Your task to perform on an android device: turn on javascript in the chrome app Image 0: 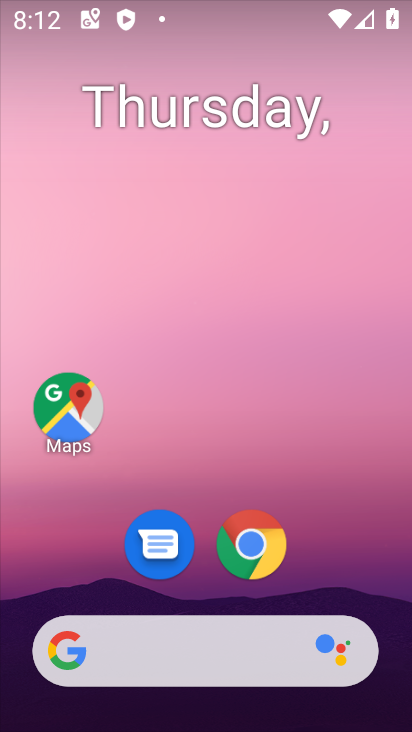
Step 0: click (251, 544)
Your task to perform on an android device: turn on javascript in the chrome app Image 1: 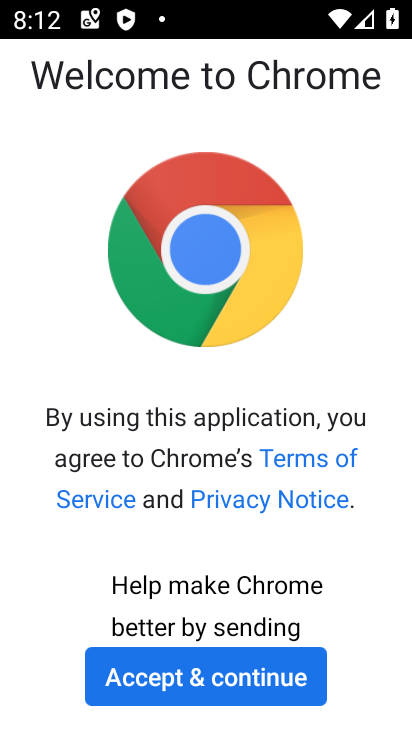
Step 1: click (201, 676)
Your task to perform on an android device: turn on javascript in the chrome app Image 2: 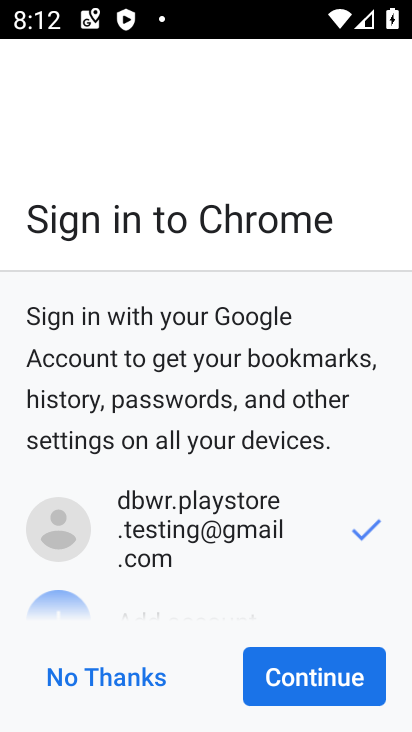
Step 2: click (304, 679)
Your task to perform on an android device: turn on javascript in the chrome app Image 3: 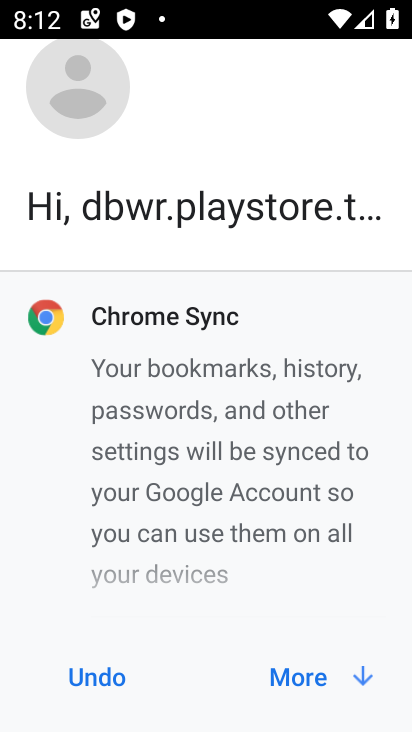
Step 3: click (304, 679)
Your task to perform on an android device: turn on javascript in the chrome app Image 4: 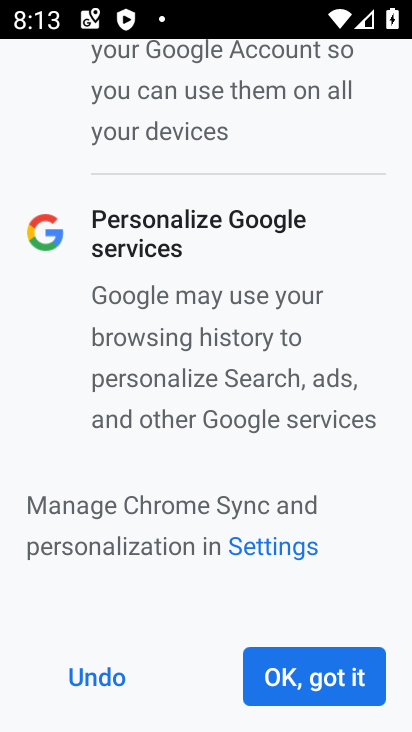
Step 4: click (304, 679)
Your task to perform on an android device: turn on javascript in the chrome app Image 5: 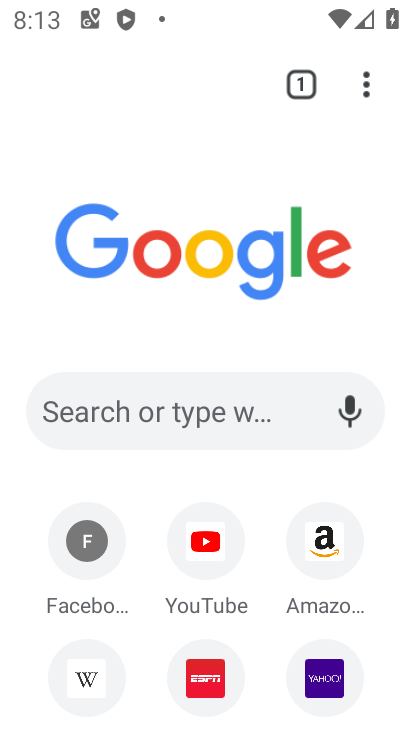
Step 5: click (369, 83)
Your task to perform on an android device: turn on javascript in the chrome app Image 6: 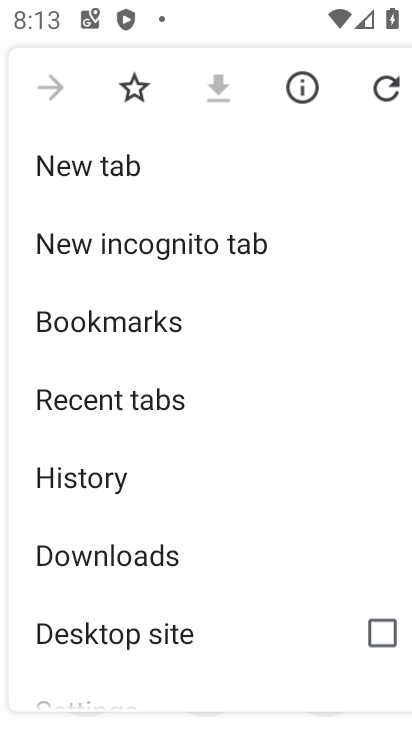
Step 6: drag from (142, 518) to (177, 436)
Your task to perform on an android device: turn on javascript in the chrome app Image 7: 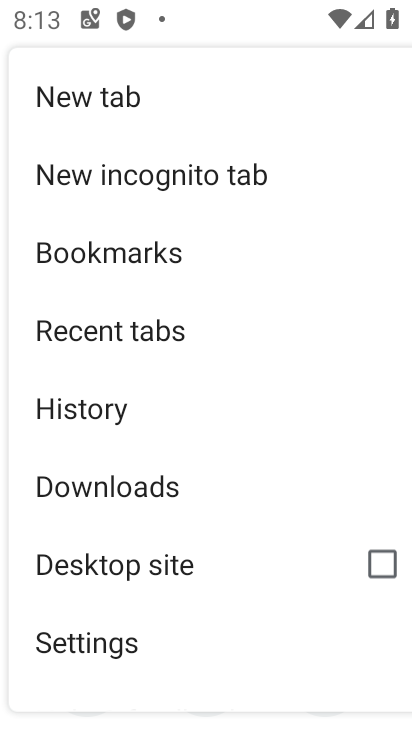
Step 7: drag from (115, 598) to (187, 505)
Your task to perform on an android device: turn on javascript in the chrome app Image 8: 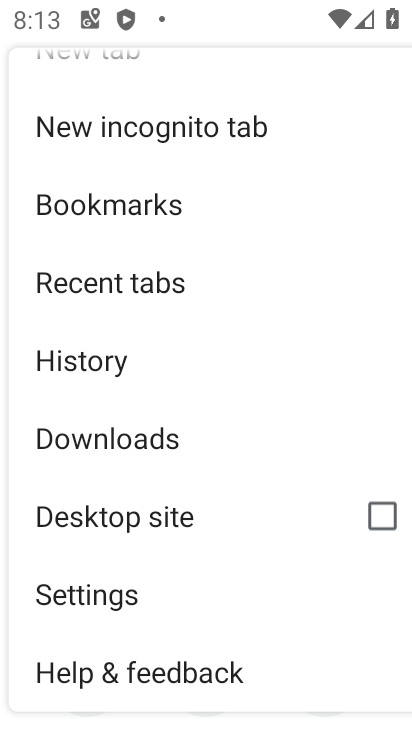
Step 8: click (122, 582)
Your task to perform on an android device: turn on javascript in the chrome app Image 9: 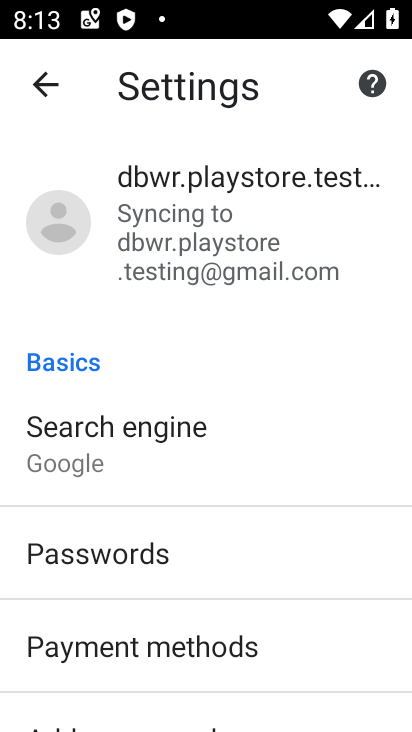
Step 9: drag from (190, 616) to (260, 509)
Your task to perform on an android device: turn on javascript in the chrome app Image 10: 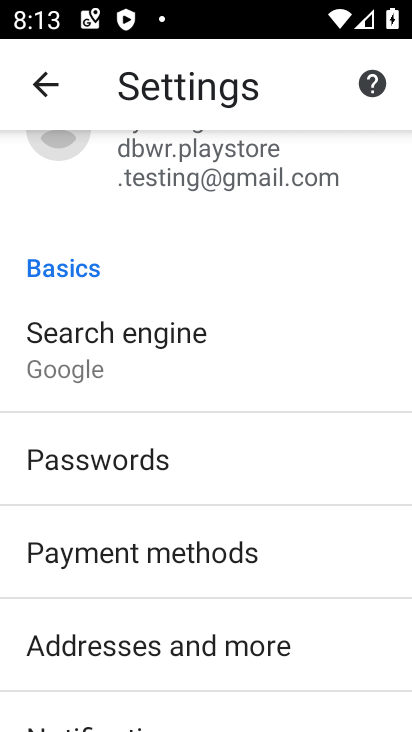
Step 10: drag from (169, 612) to (244, 511)
Your task to perform on an android device: turn on javascript in the chrome app Image 11: 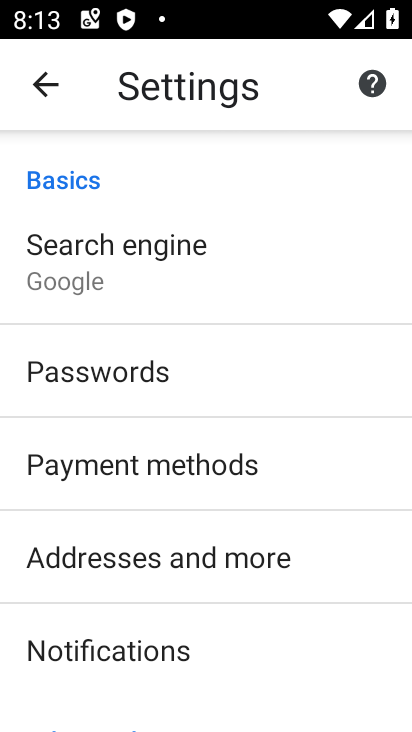
Step 11: drag from (130, 631) to (239, 506)
Your task to perform on an android device: turn on javascript in the chrome app Image 12: 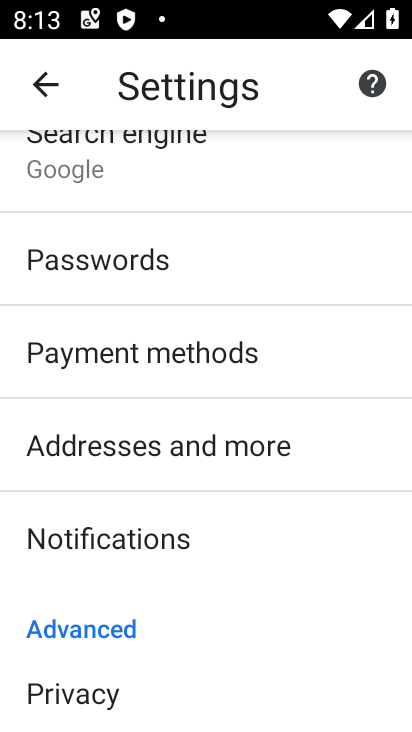
Step 12: drag from (110, 587) to (219, 452)
Your task to perform on an android device: turn on javascript in the chrome app Image 13: 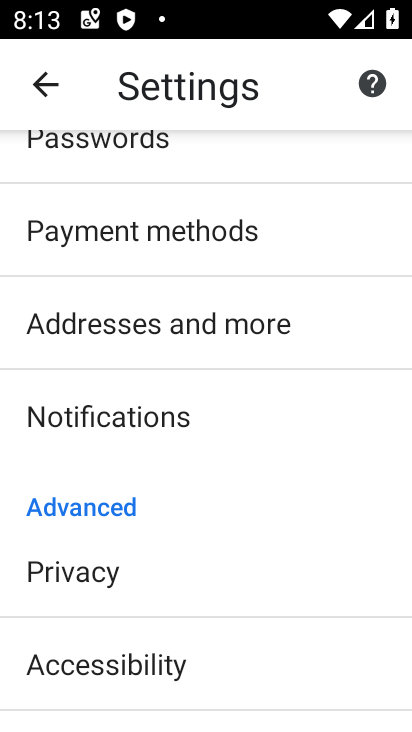
Step 13: drag from (122, 583) to (203, 491)
Your task to perform on an android device: turn on javascript in the chrome app Image 14: 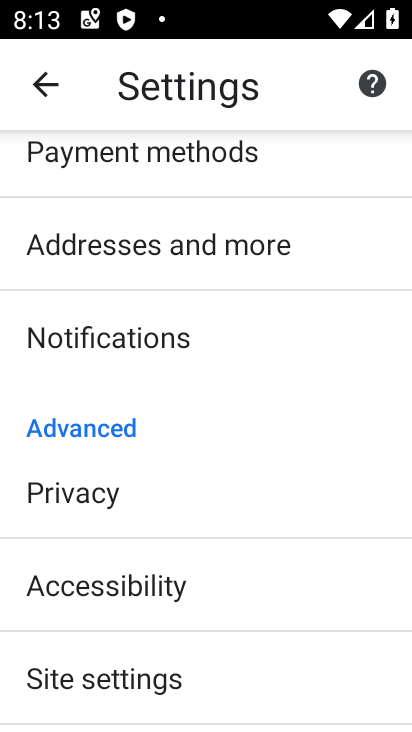
Step 14: drag from (115, 590) to (207, 488)
Your task to perform on an android device: turn on javascript in the chrome app Image 15: 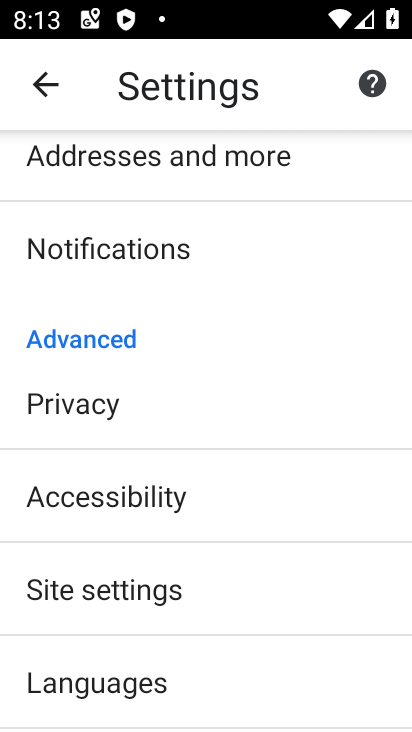
Step 15: click (136, 588)
Your task to perform on an android device: turn on javascript in the chrome app Image 16: 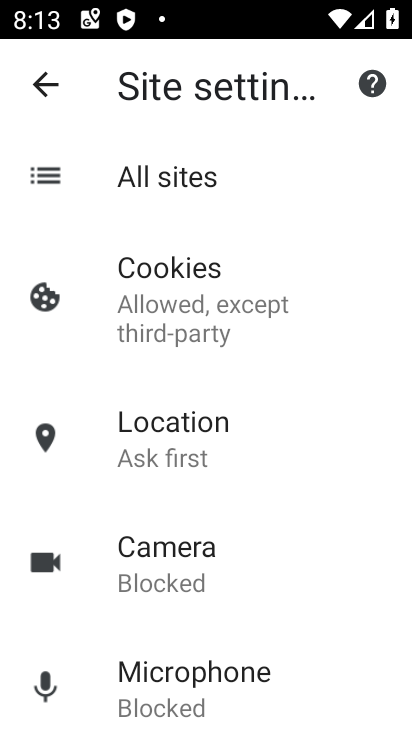
Step 16: drag from (168, 620) to (210, 534)
Your task to perform on an android device: turn on javascript in the chrome app Image 17: 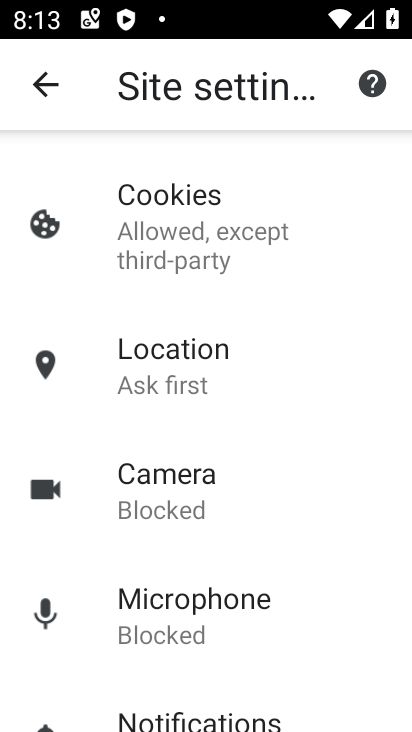
Step 17: drag from (156, 650) to (240, 549)
Your task to perform on an android device: turn on javascript in the chrome app Image 18: 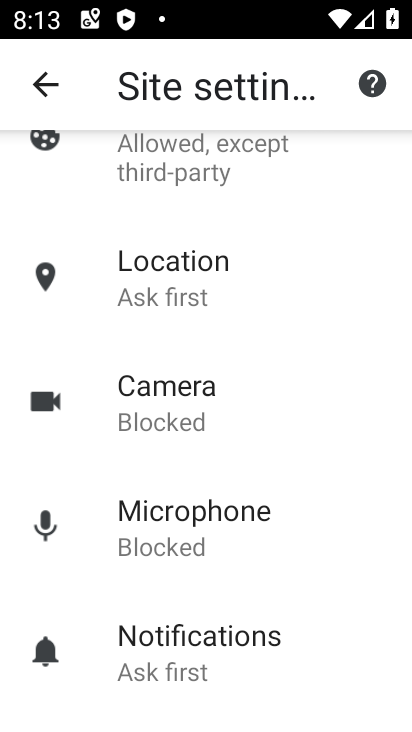
Step 18: drag from (185, 594) to (265, 474)
Your task to perform on an android device: turn on javascript in the chrome app Image 19: 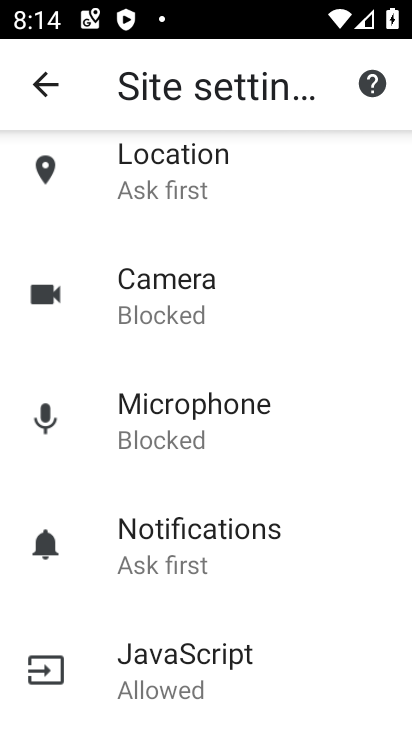
Step 19: click (181, 647)
Your task to perform on an android device: turn on javascript in the chrome app Image 20: 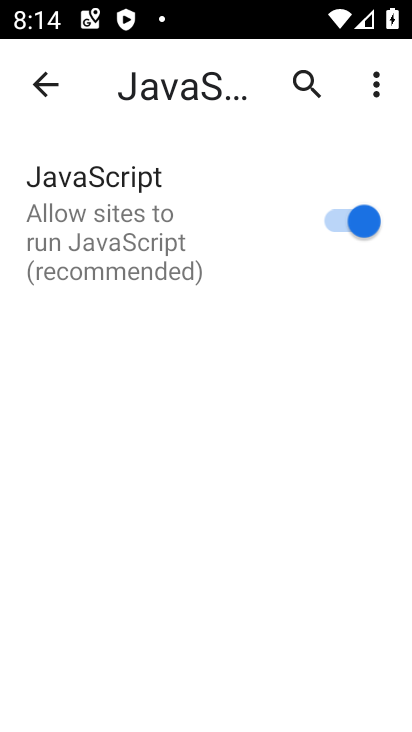
Step 20: task complete